Your task to perform on an android device: search for starred emails in the gmail app Image 0: 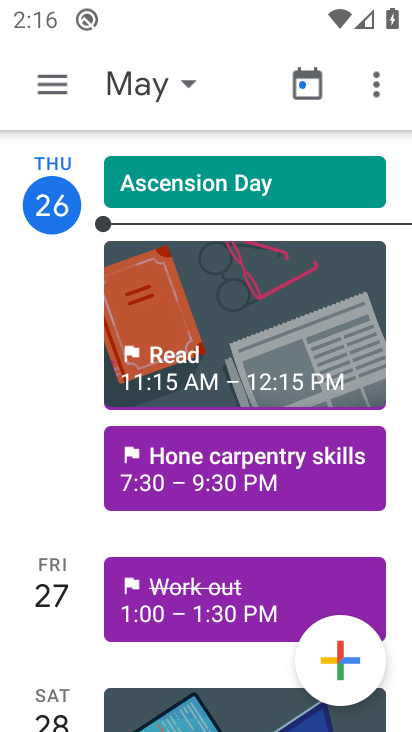
Step 0: press home button
Your task to perform on an android device: search for starred emails in the gmail app Image 1: 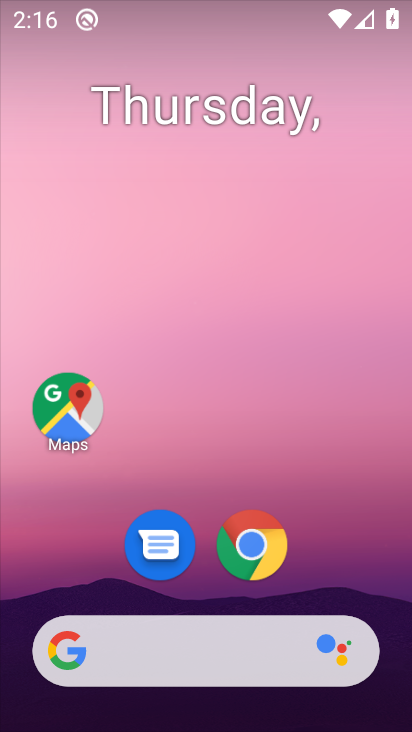
Step 1: drag from (234, 379) to (247, 126)
Your task to perform on an android device: search for starred emails in the gmail app Image 2: 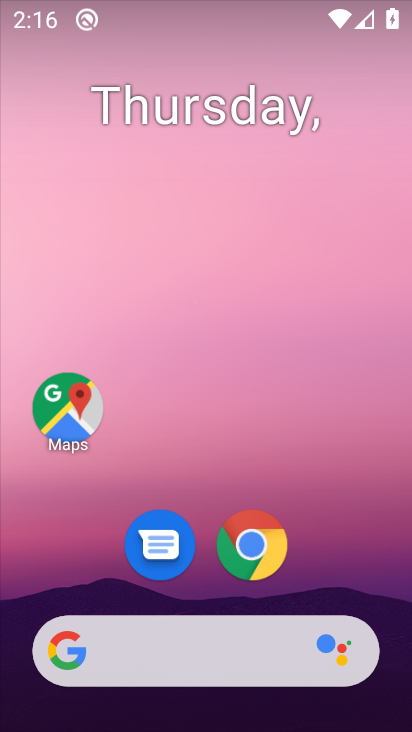
Step 2: drag from (237, 616) to (367, 68)
Your task to perform on an android device: search for starred emails in the gmail app Image 3: 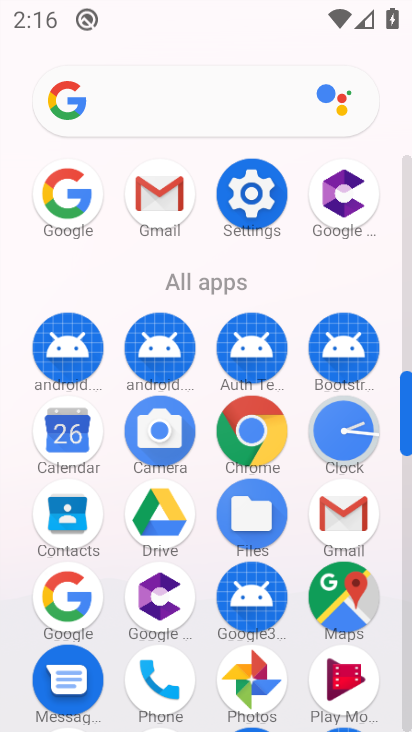
Step 3: click (329, 516)
Your task to perform on an android device: search for starred emails in the gmail app Image 4: 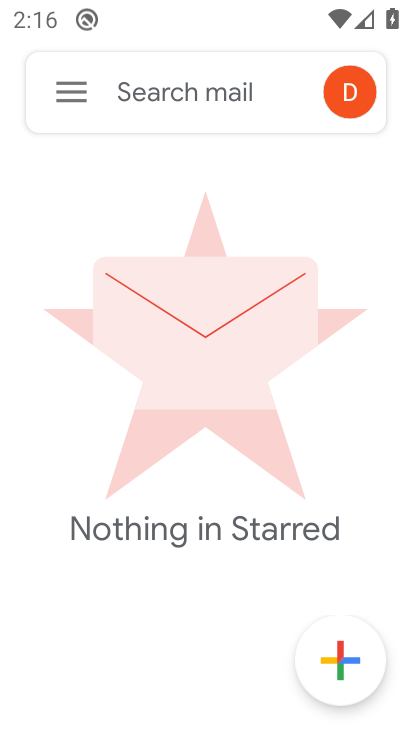
Step 4: task complete